Your task to perform on an android device: Open the web browser Image 0: 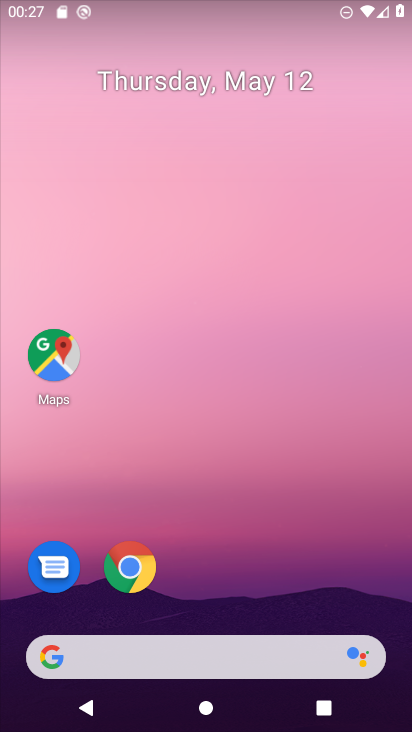
Step 0: click (140, 583)
Your task to perform on an android device: Open the web browser Image 1: 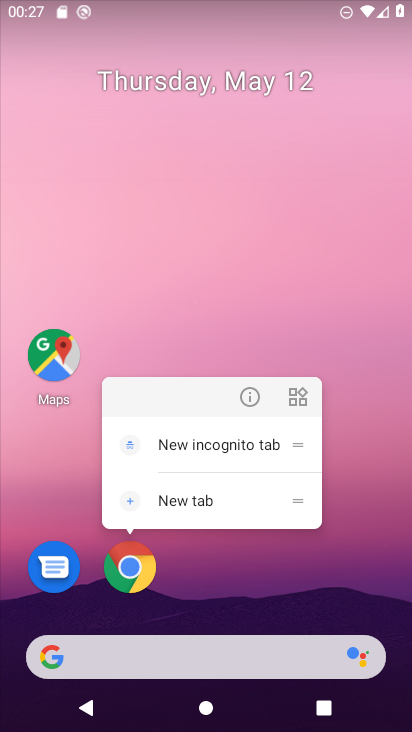
Step 1: click (145, 580)
Your task to perform on an android device: Open the web browser Image 2: 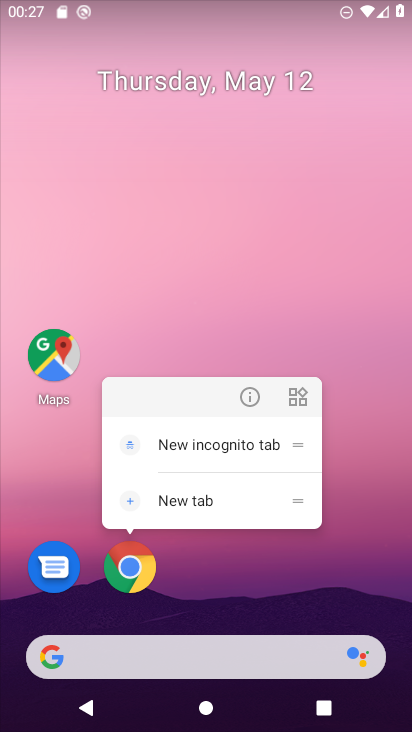
Step 2: click (145, 580)
Your task to perform on an android device: Open the web browser Image 3: 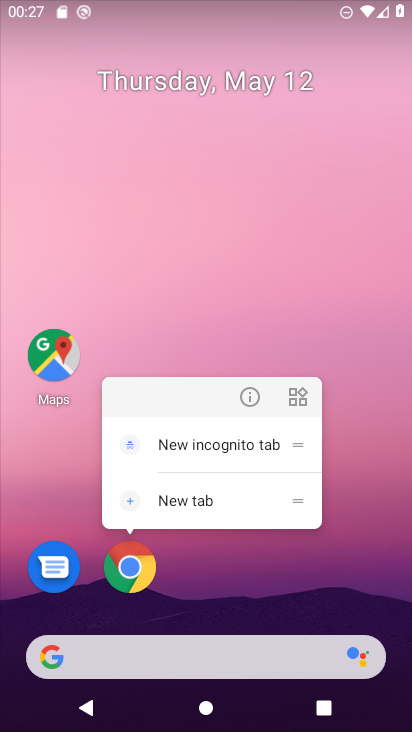
Step 3: click (145, 580)
Your task to perform on an android device: Open the web browser Image 4: 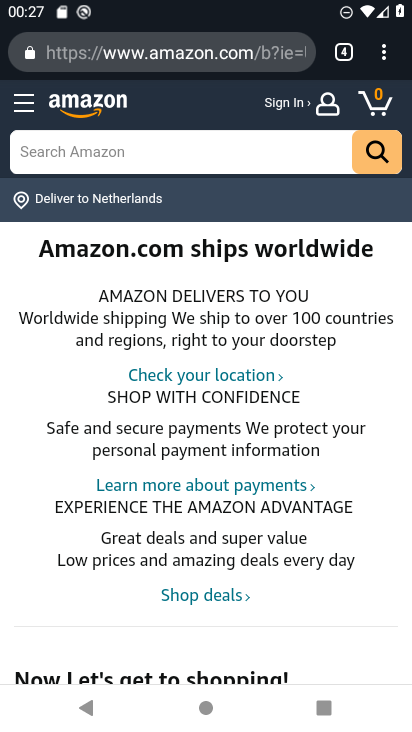
Step 4: task complete